Your task to perform on an android device: uninstall "Spotify: Music and Podcasts" Image 0: 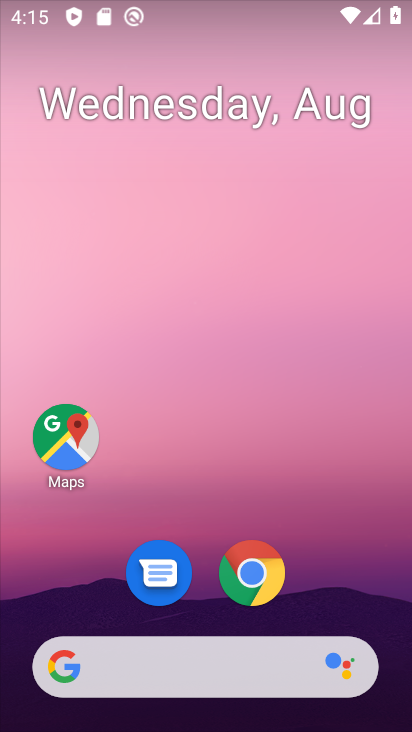
Step 0: press back button
Your task to perform on an android device: uninstall "Spotify: Music and Podcasts" Image 1: 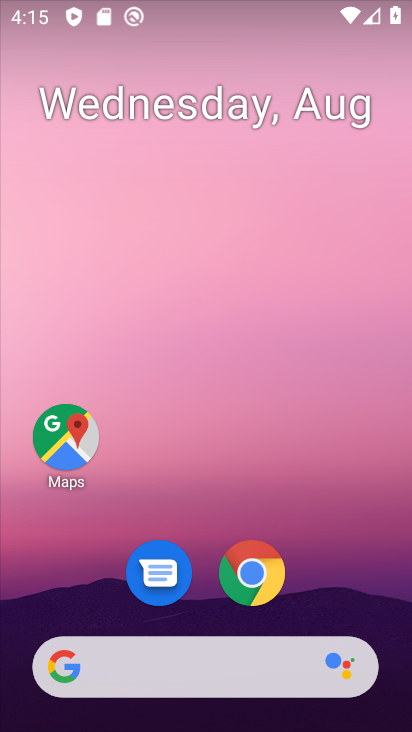
Step 1: click (160, 145)
Your task to perform on an android device: uninstall "Spotify: Music and Podcasts" Image 2: 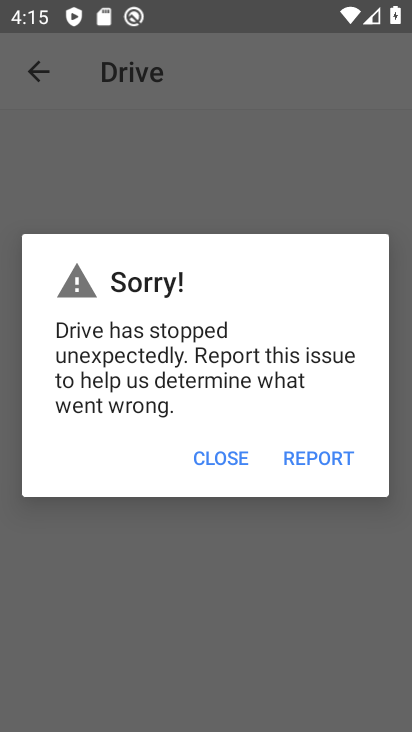
Step 2: press home button
Your task to perform on an android device: uninstall "Spotify: Music and Podcasts" Image 3: 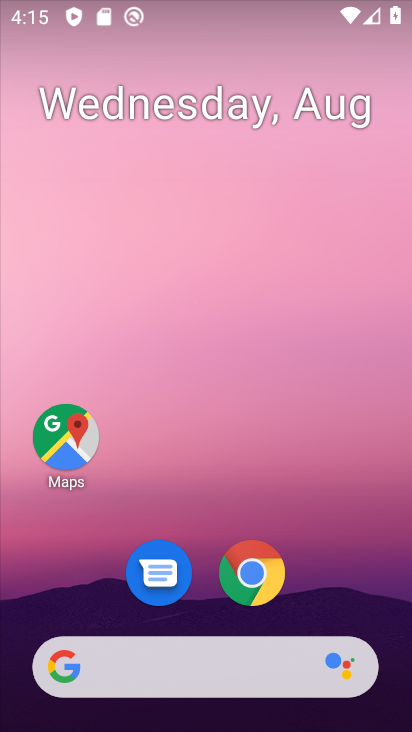
Step 3: drag from (192, 513) to (145, 6)
Your task to perform on an android device: uninstall "Spotify: Music and Podcasts" Image 4: 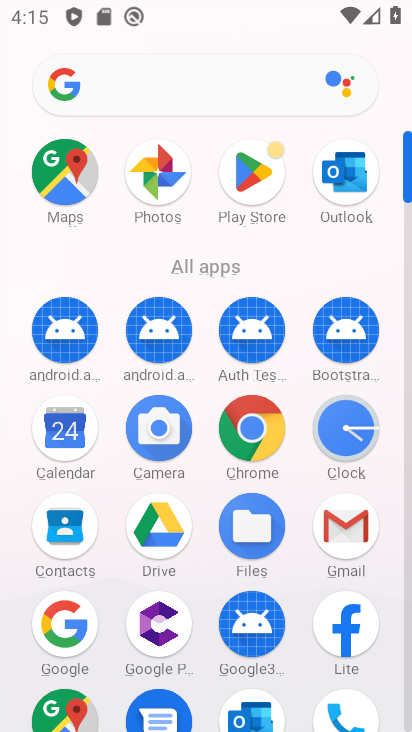
Step 4: click (240, 176)
Your task to perform on an android device: uninstall "Spotify: Music and Podcasts" Image 5: 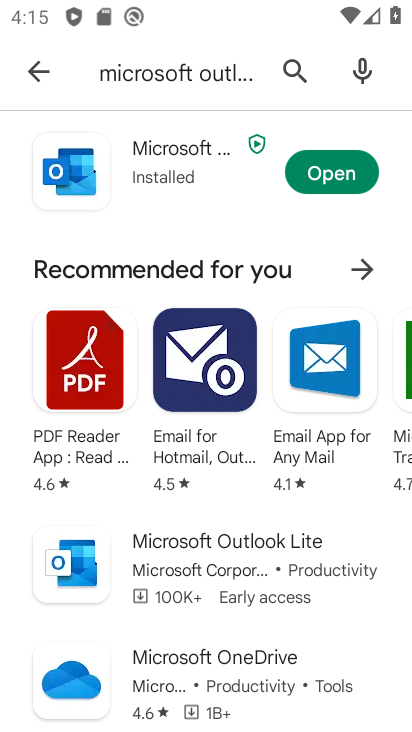
Step 5: click (292, 59)
Your task to perform on an android device: uninstall "Spotify: Music and Podcasts" Image 6: 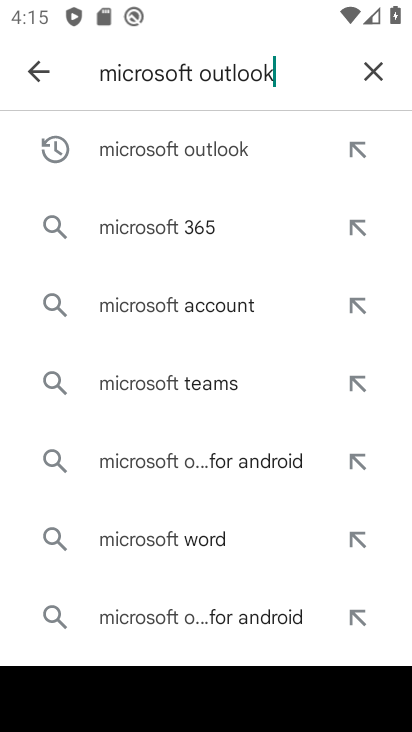
Step 6: click (369, 68)
Your task to perform on an android device: uninstall "Spotify: Music and Podcasts" Image 7: 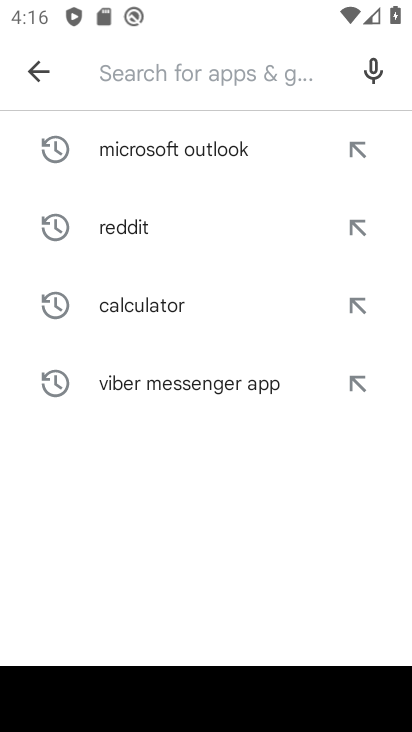
Step 7: type "Spotify: Music and Podcast"
Your task to perform on an android device: uninstall "Spotify: Music and Podcasts" Image 8: 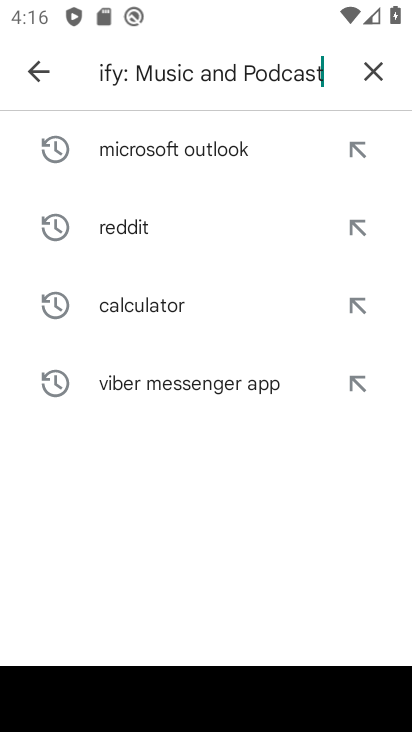
Step 8: type ""
Your task to perform on an android device: uninstall "Spotify: Music and Podcasts" Image 9: 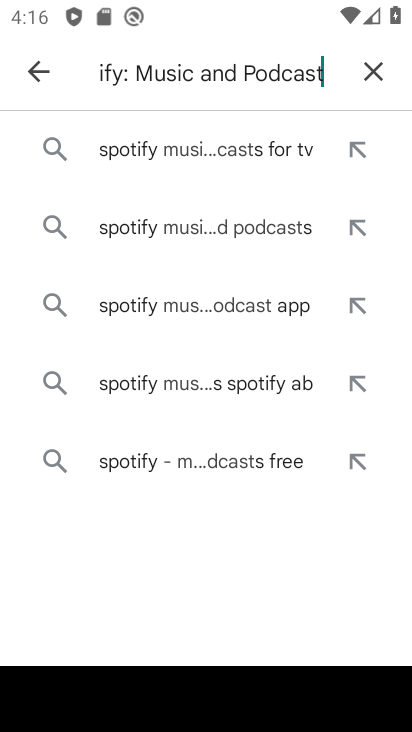
Step 9: click (255, 155)
Your task to perform on an android device: uninstall "Spotify: Music and Podcasts" Image 10: 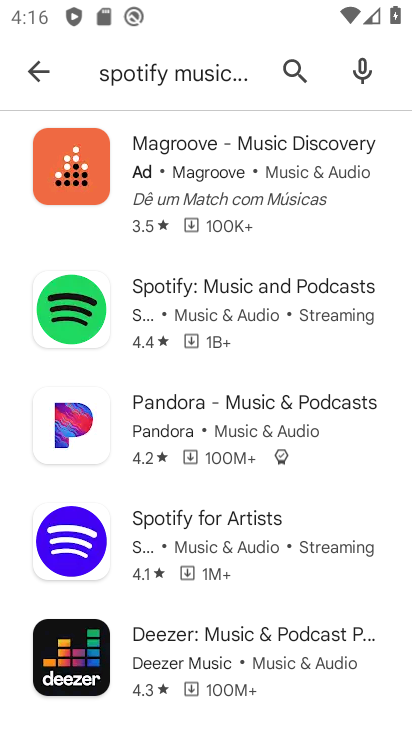
Step 10: click (277, 301)
Your task to perform on an android device: uninstall "Spotify: Music and Podcasts" Image 11: 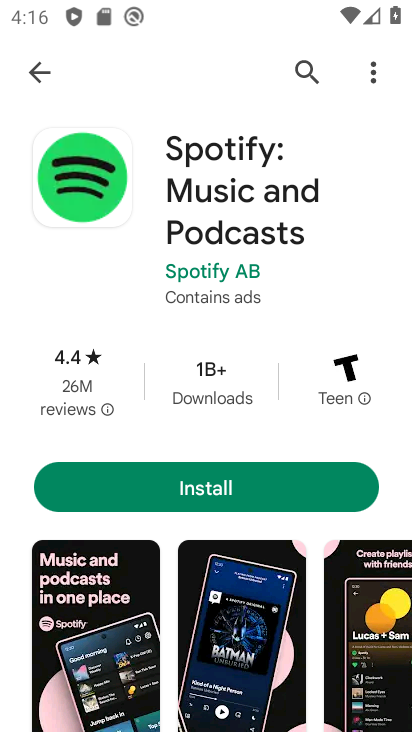
Step 11: task complete